Your task to perform on an android device: change alarm snooze length Image 0: 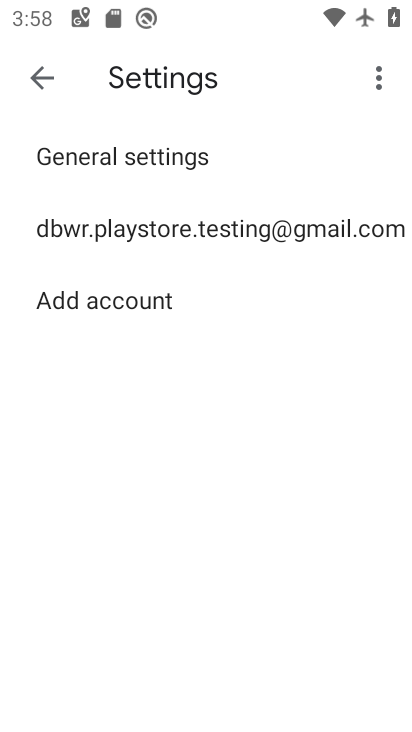
Step 0: press home button
Your task to perform on an android device: change alarm snooze length Image 1: 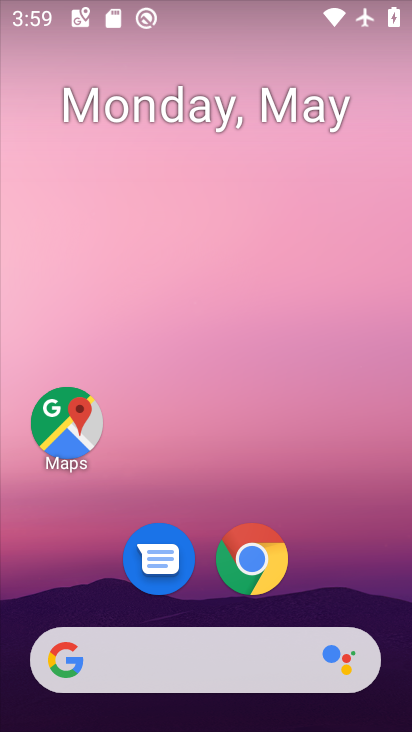
Step 1: drag from (303, 594) to (217, 3)
Your task to perform on an android device: change alarm snooze length Image 2: 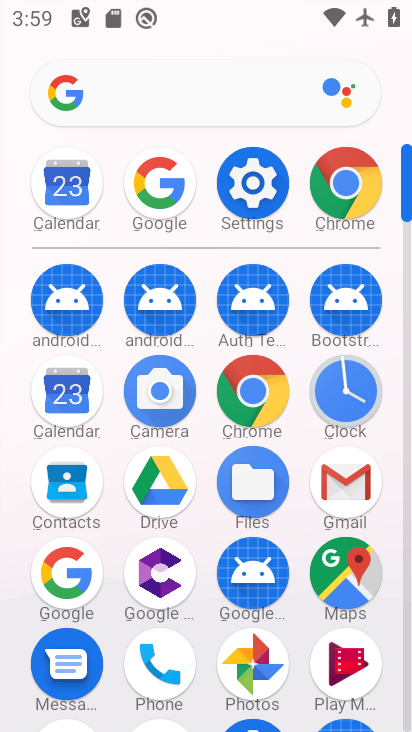
Step 2: click (333, 394)
Your task to perform on an android device: change alarm snooze length Image 3: 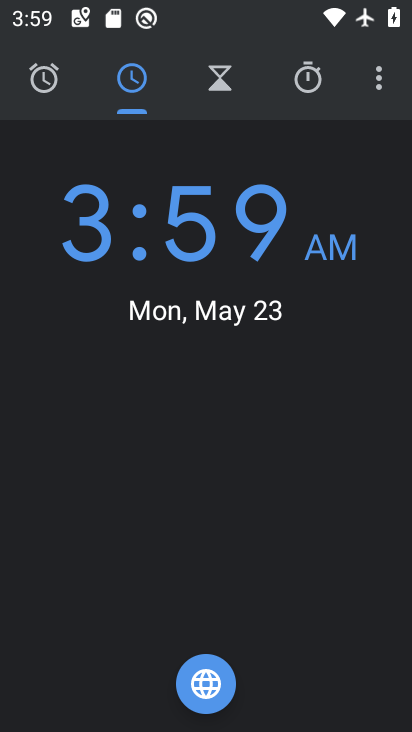
Step 3: click (381, 87)
Your task to perform on an android device: change alarm snooze length Image 4: 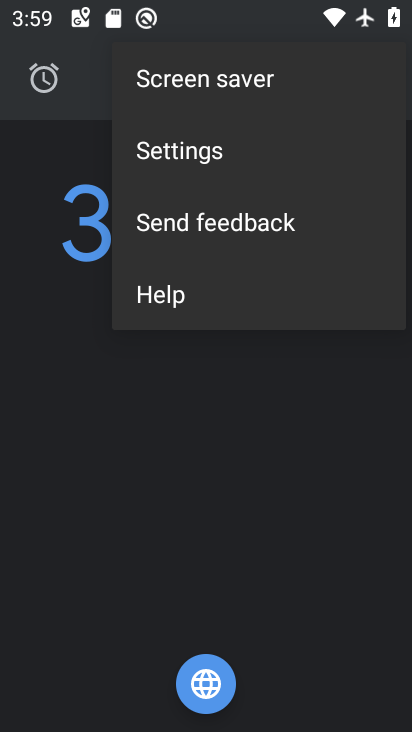
Step 4: click (216, 152)
Your task to perform on an android device: change alarm snooze length Image 5: 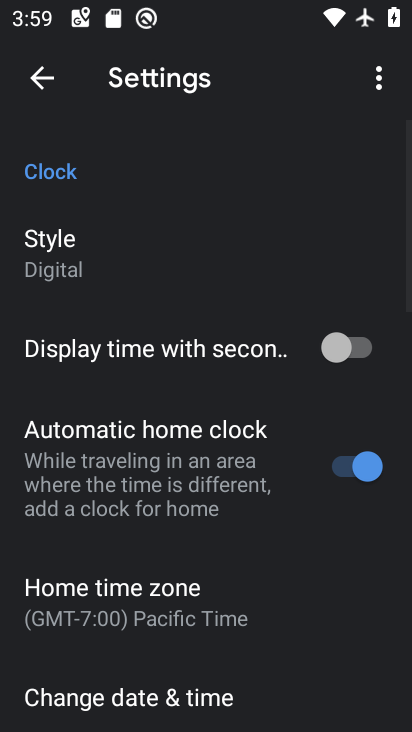
Step 5: drag from (230, 622) to (179, 176)
Your task to perform on an android device: change alarm snooze length Image 6: 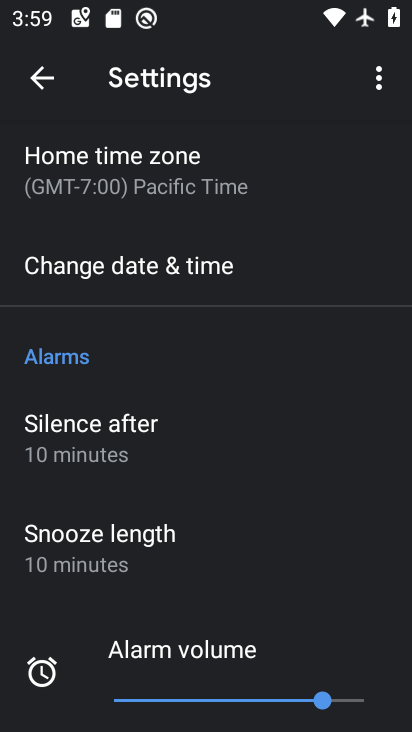
Step 6: click (155, 562)
Your task to perform on an android device: change alarm snooze length Image 7: 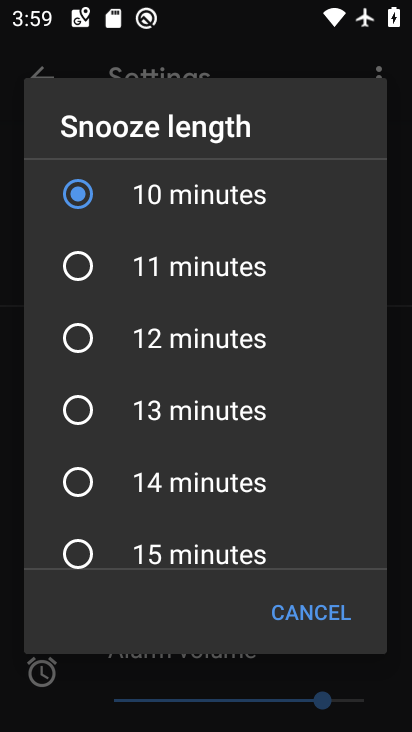
Step 7: click (76, 265)
Your task to perform on an android device: change alarm snooze length Image 8: 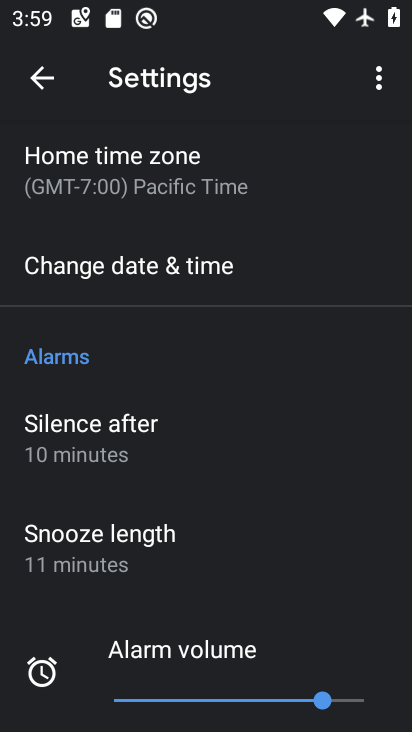
Step 8: task complete